Your task to perform on an android device: star an email in the gmail app Image 0: 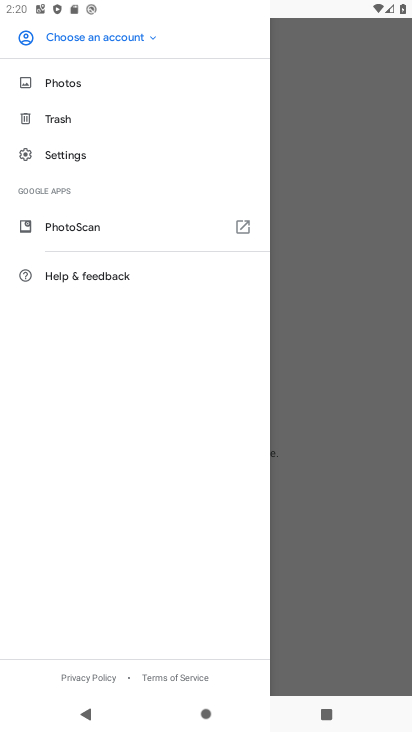
Step 0: press home button
Your task to perform on an android device: star an email in the gmail app Image 1: 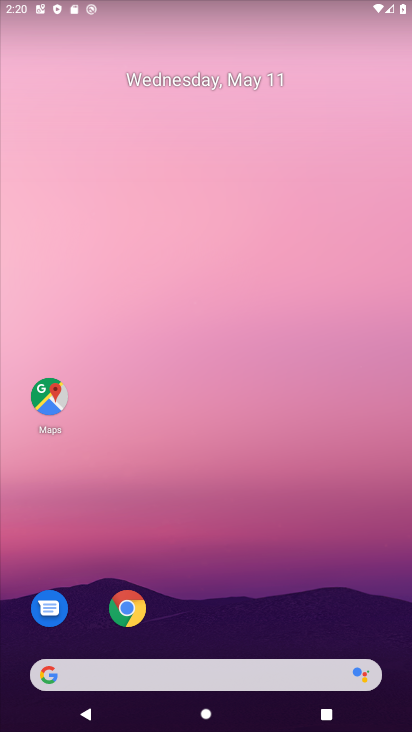
Step 1: click (49, 397)
Your task to perform on an android device: star an email in the gmail app Image 2: 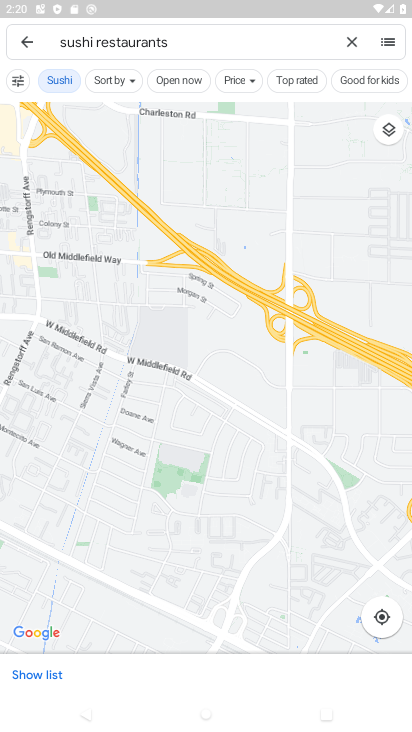
Step 2: press home button
Your task to perform on an android device: star an email in the gmail app Image 3: 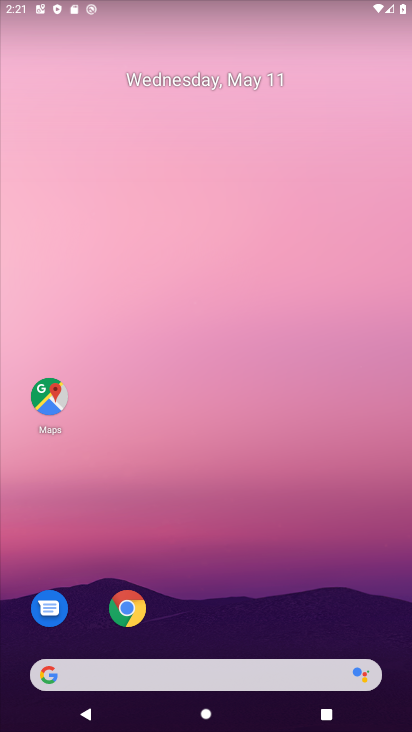
Step 3: drag from (277, 636) to (309, 286)
Your task to perform on an android device: star an email in the gmail app Image 4: 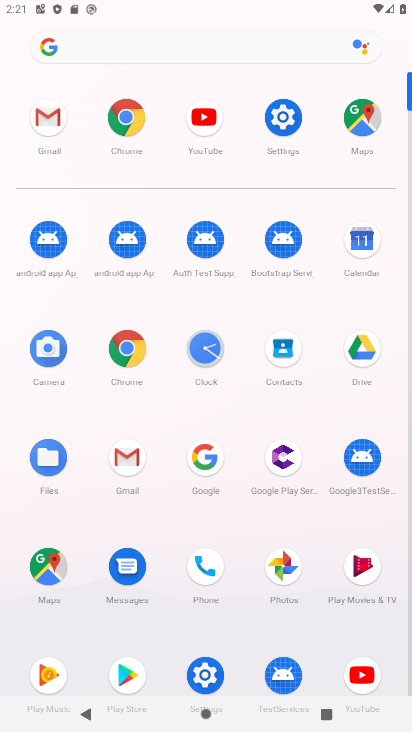
Step 4: click (131, 455)
Your task to perform on an android device: star an email in the gmail app Image 5: 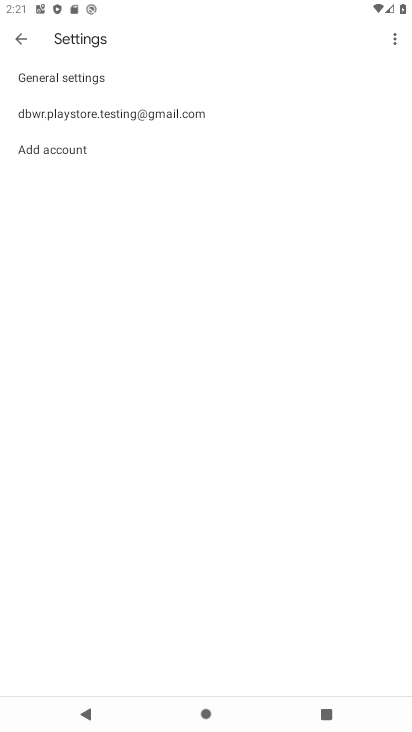
Step 5: click (19, 34)
Your task to perform on an android device: star an email in the gmail app Image 6: 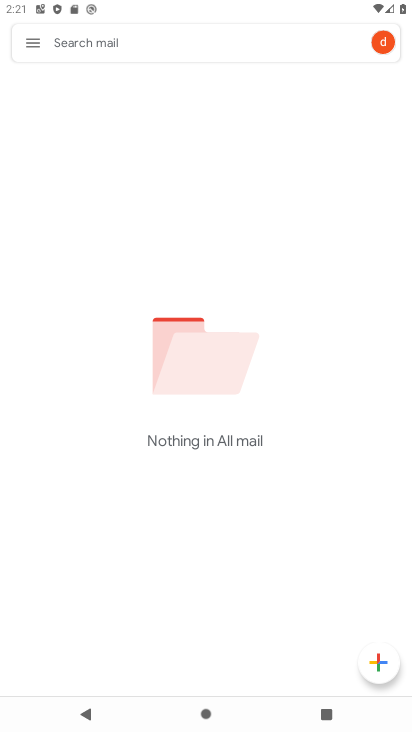
Step 6: task complete